Your task to perform on an android device: Go to wifi settings Image 0: 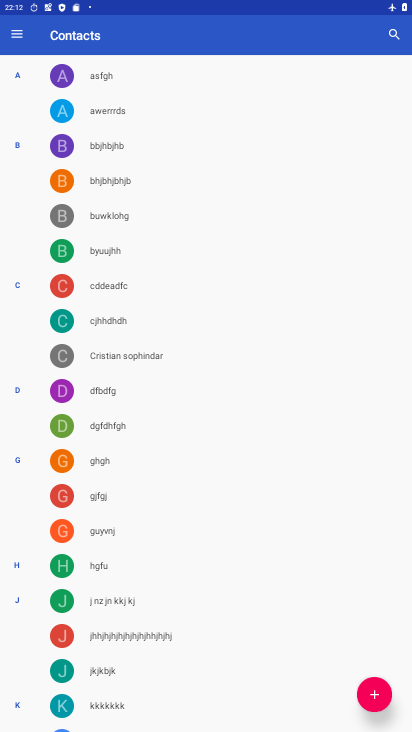
Step 0: press home button
Your task to perform on an android device: Go to wifi settings Image 1: 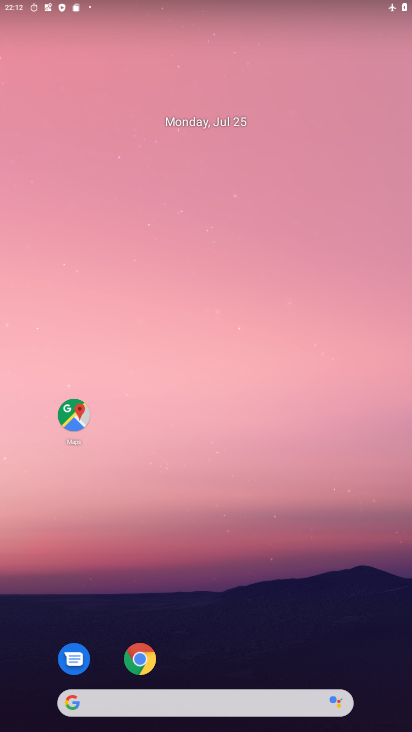
Step 1: drag from (210, 637) to (223, 223)
Your task to perform on an android device: Go to wifi settings Image 2: 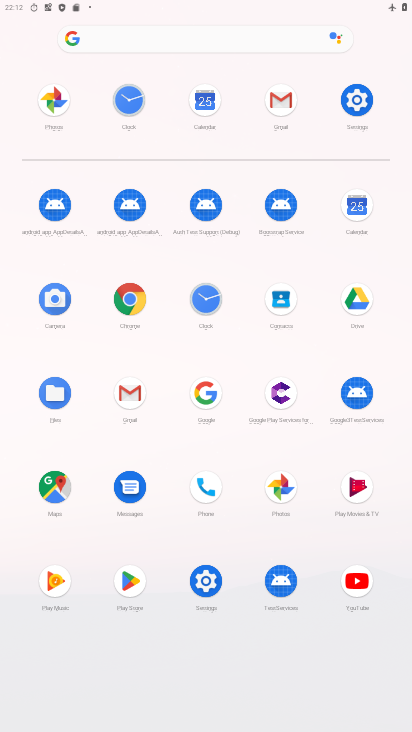
Step 2: click (353, 101)
Your task to perform on an android device: Go to wifi settings Image 3: 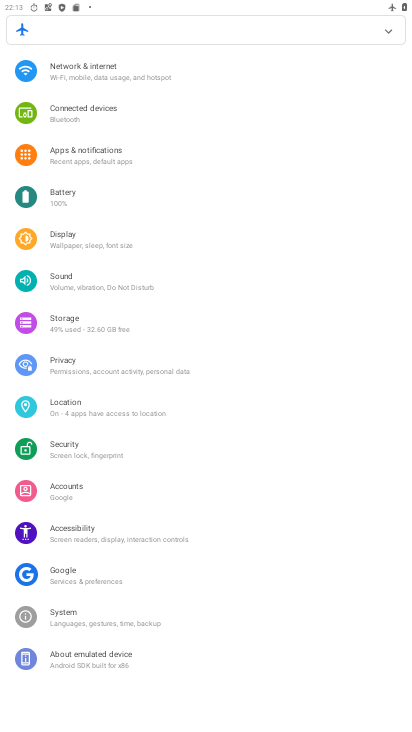
Step 3: click (129, 90)
Your task to perform on an android device: Go to wifi settings Image 4: 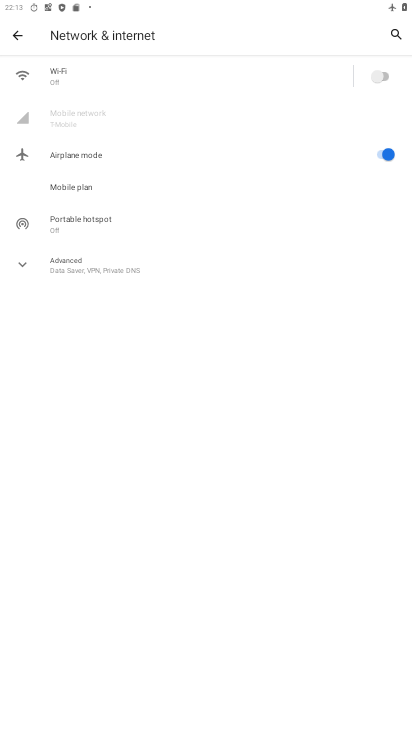
Step 4: click (91, 84)
Your task to perform on an android device: Go to wifi settings Image 5: 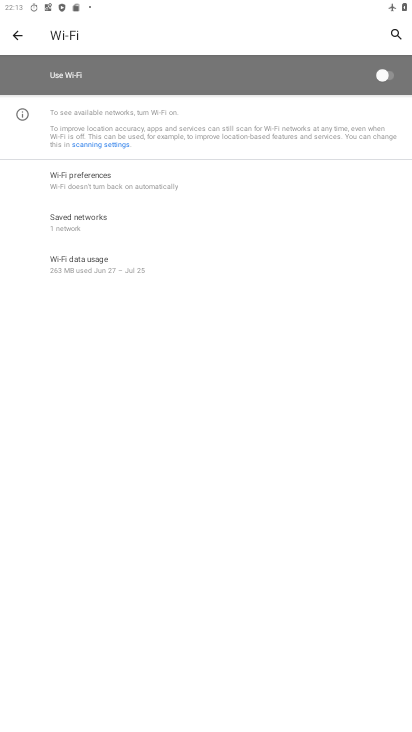
Step 5: task complete